Your task to perform on an android device: Go to internet settings Image 0: 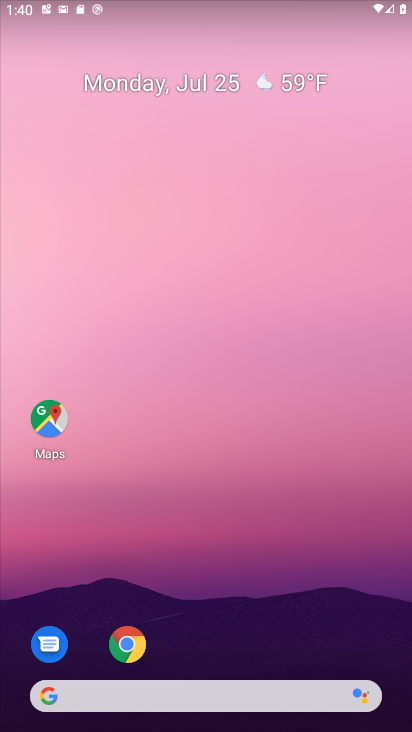
Step 0: drag from (398, 649) to (323, 2)
Your task to perform on an android device: Go to internet settings Image 1: 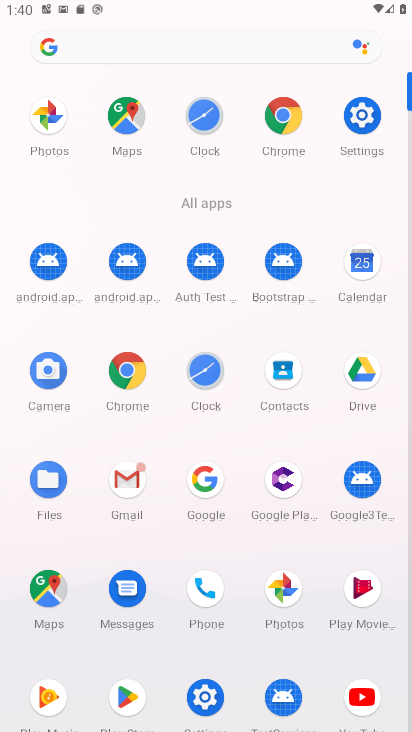
Step 1: click (323, 2)
Your task to perform on an android device: Go to internet settings Image 2: 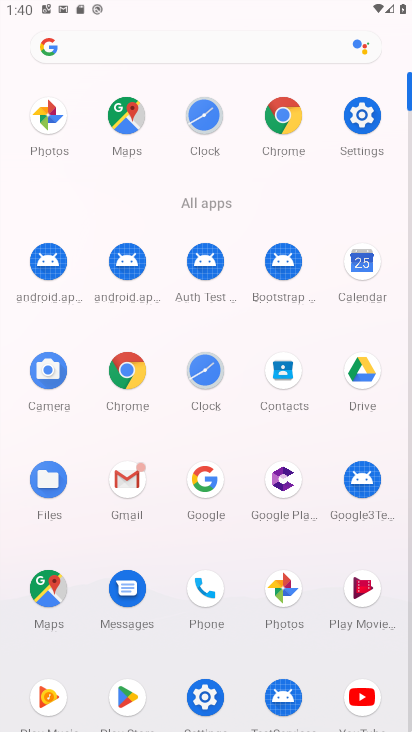
Step 2: click (353, 116)
Your task to perform on an android device: Go to internet settings Image 3: 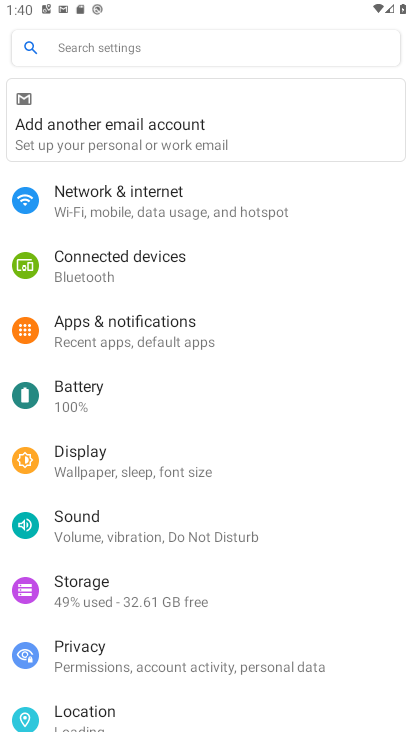
Step 3: click (149, 199)
Your task to perform on an android device: Go to internet settings Image 4: 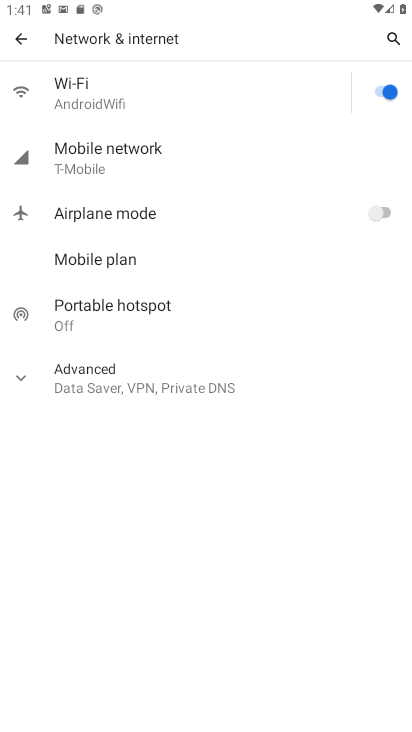
Step 4: task complete